Your task to perform on an android device: Go to battery settings Image 0: 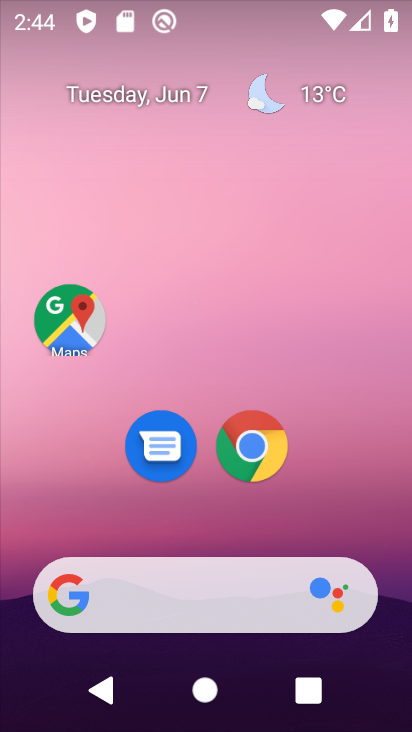
Step 0: drag from (235, 556) to (252, 88)
Your task to perform on an android device: Go to battery settings Image 1: 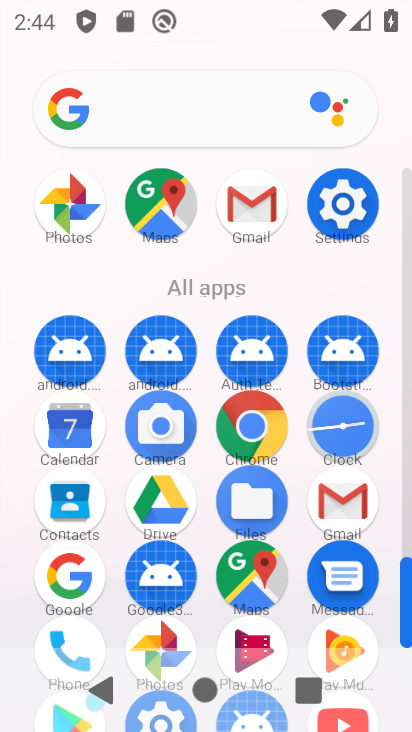
Step 1: click (350, 210)
Your task to perform on an android device: Go to battery settings Image 2: 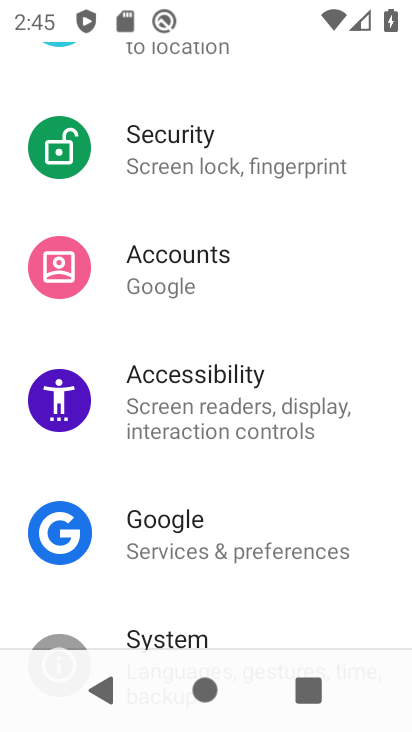
Step 2: drag from (241, 524) to (218, 634)
Your task to perform on an android device: Go to battery settings Image 3: 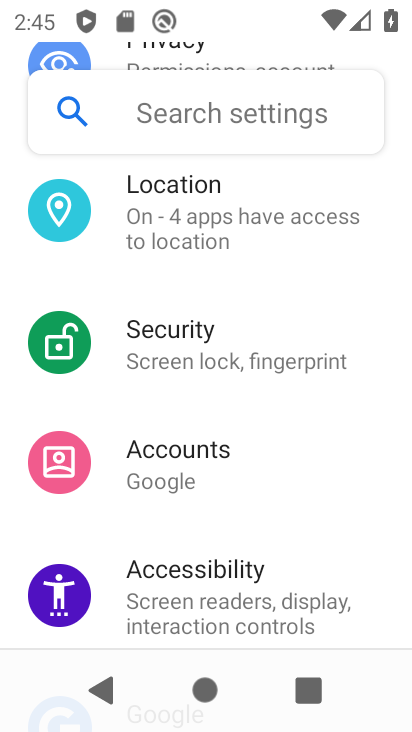
Step 3: drag from (234, 238) to (195, 675)
Your task to perform on an android device: Go to battery settings Image 4: 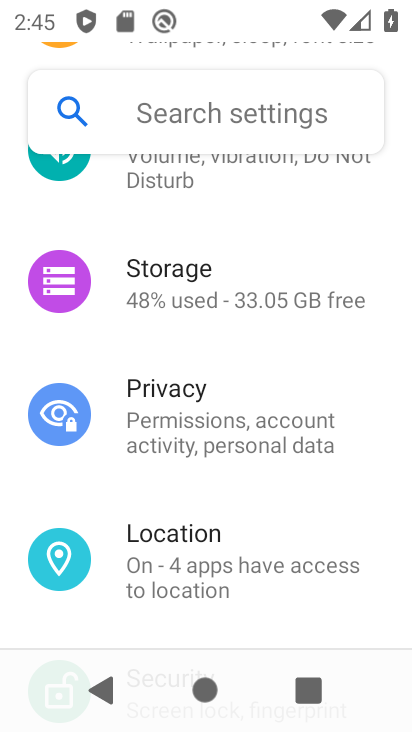
Step 4: drag from (236, 270) to (223, 471)
Your task to perform on an android device: Go to battery settings Image 5: 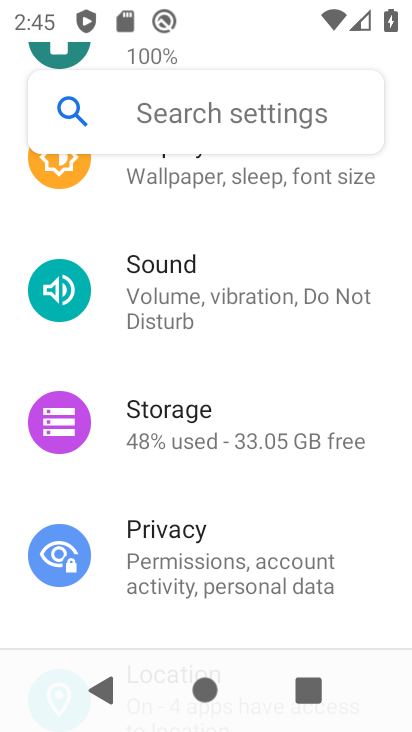
Step 5: drag from (218, 279) to (142, 731)
Your task to perform on an android device: Go to battery settings Image 6: 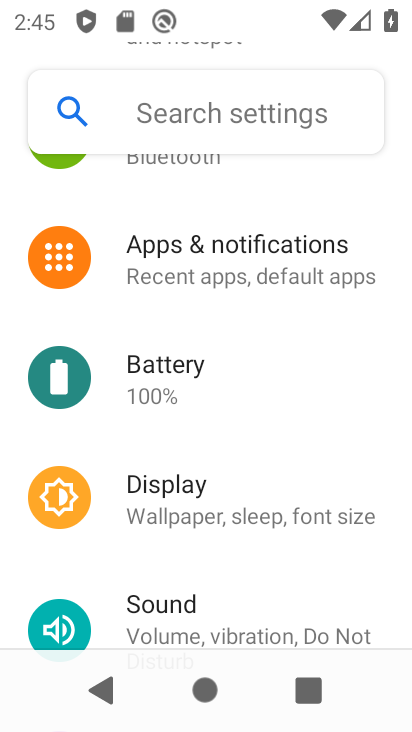
Step 6: click (167, 382)
Your task to perform on an android device: Go to battery settings Image 7: 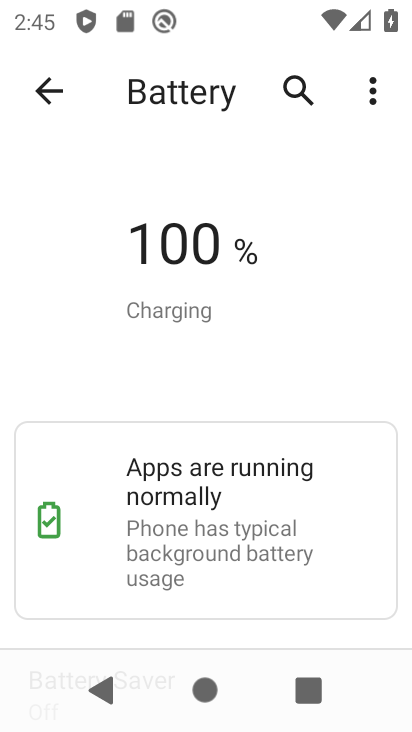
Step 7: task complete